Your task to perform on an android device: change alarm snooze length Image 0: 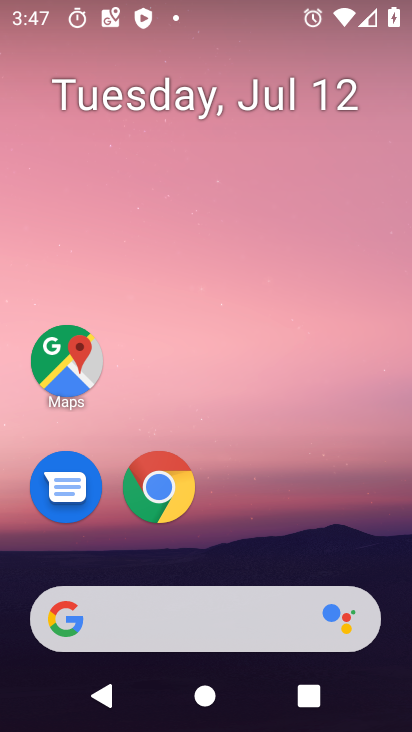
Step 0: drag from (223, 540) to (258, 181)
Your task to perform on an android device: change alarm snooze length Image 1: 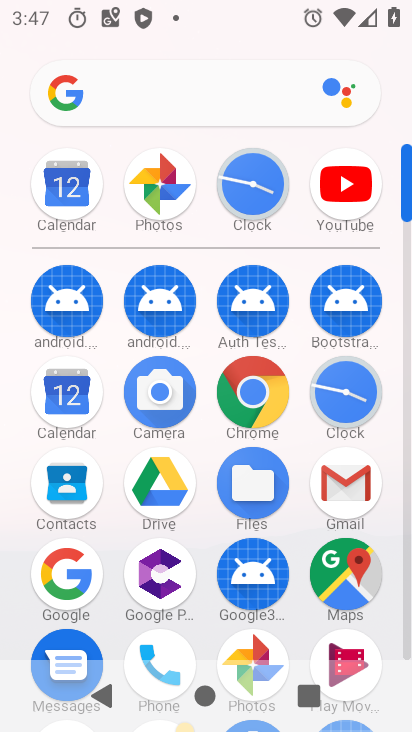
Step 1: click (360, 408)
Your task to perform on an android device: change alarm snooze length Image 2: 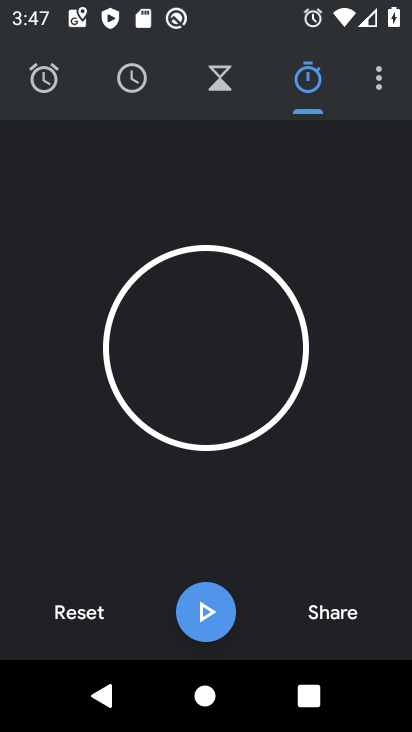
Step 2: click (380, 72)
Your task to perform on an android device: change alarm snooze length Image 3: 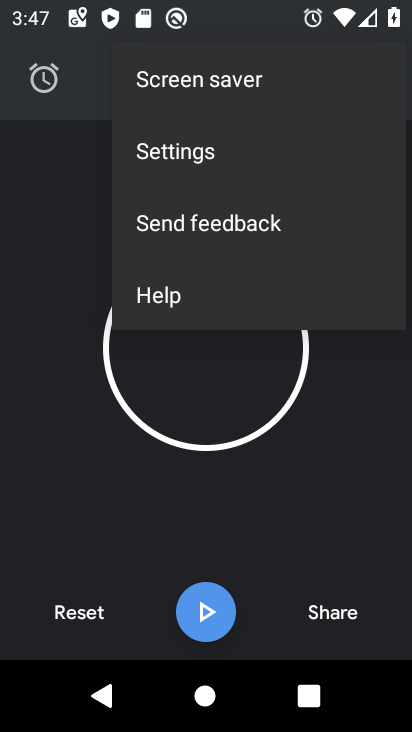
Step 3: click (179, 155)
Your task to perform on an android device: change alarm snooze length Image 4: 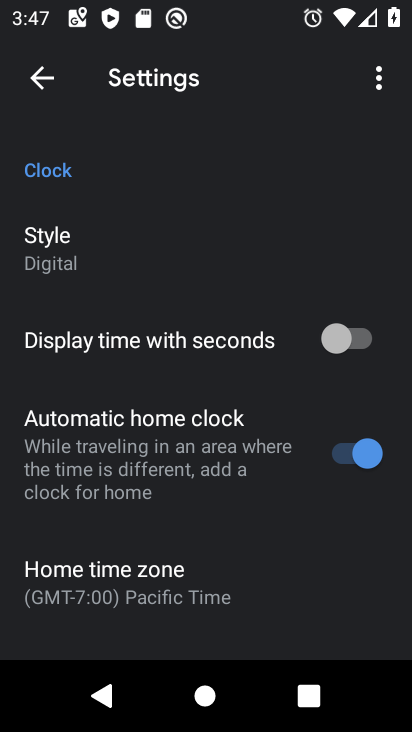
Step 4: drag from (77, 567) to (81, 272)
Your task to perform on an android device: change alarm snooze length Image 5: 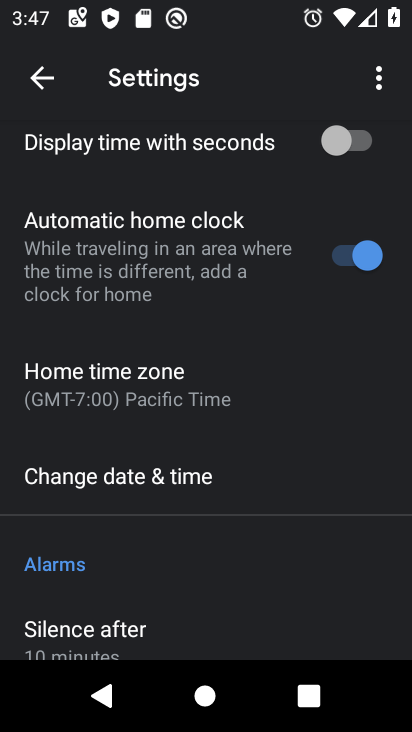
Step 5: drag from (86, 633) to (102, 313)
Your task to perform on an android device: change alarm snooze length Image 6: 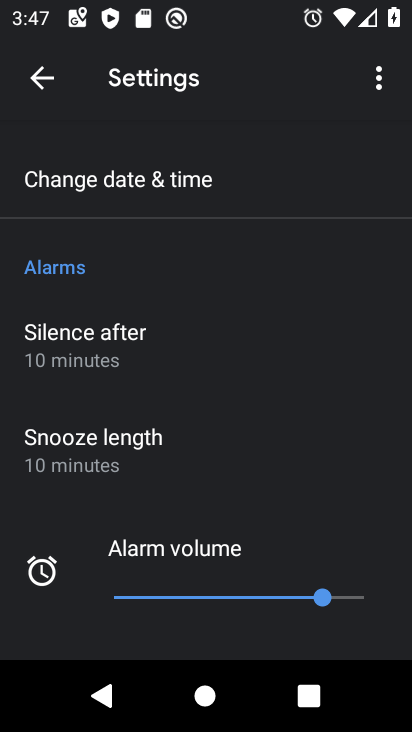
Step 6: click (106, 457)
Your task to perform on an android device: change alarm snooze length Image 7: 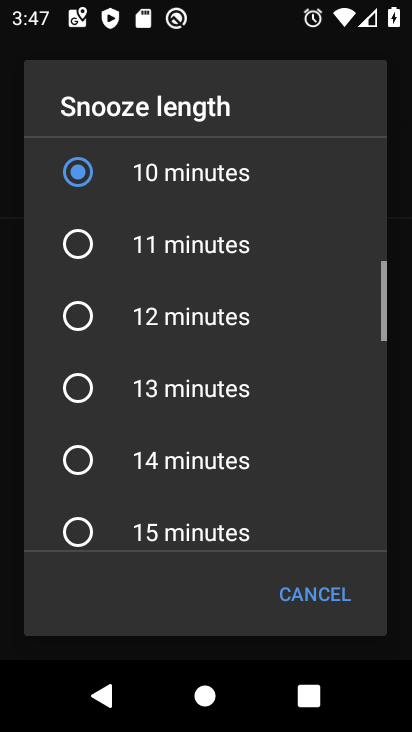
Step 7: click (190, 383)
Your task to perform on an android device: change alarm snooze length Image 8: 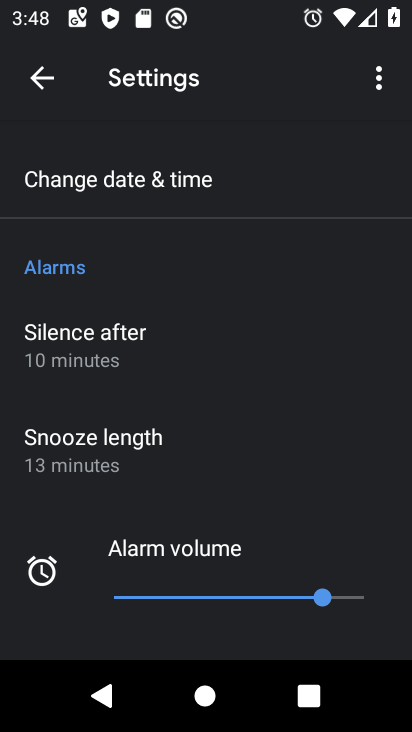
Step 8: task complete